Your task to perform on an android device: open app "Adobe Express: Graphic Design" Image 0: 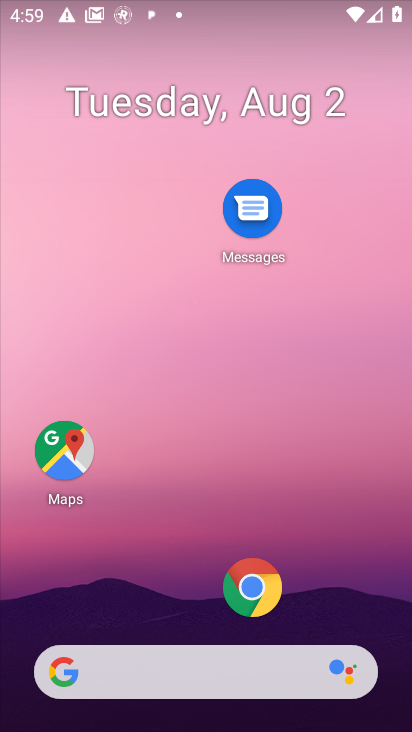
Step 0: drag from (156, 589) to (196, 166)
Your task to perform on an android device: open app "Adobe Express: Graphic Design" Image 1: 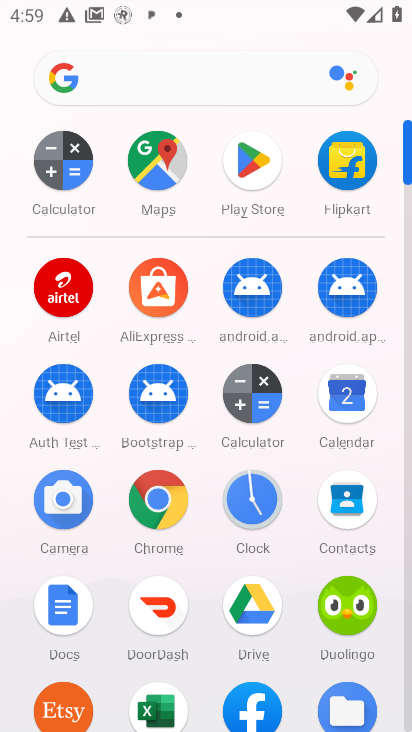
Step 1: click (241, 173)
Your task to perform on an android device: open app "Adobe Express: Graphic Design" Image 2: 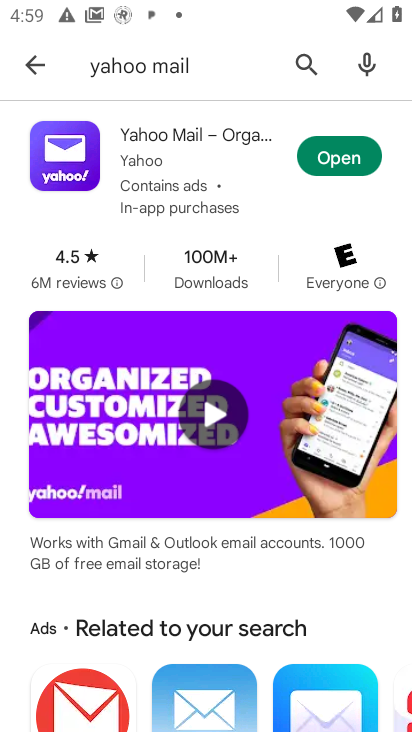
Step 2: click (303, 55)
Your task to perform on an android device: open app "Adobe Express: Graphic Design" Image 3: 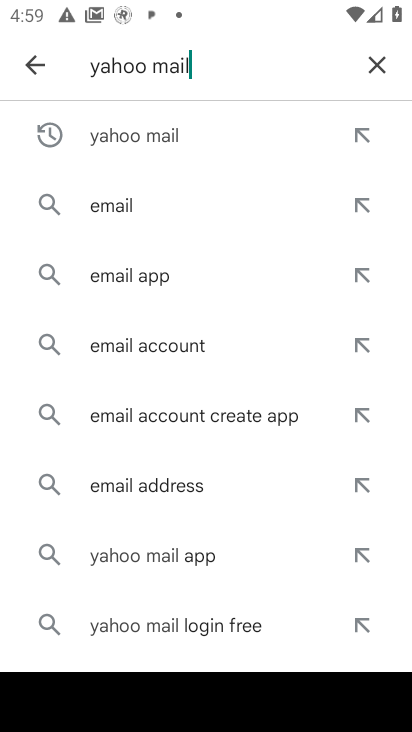
Step 3: click (369, 60)
Your task to perform on an android device: open app "Adobe Express: Graphic Design" Image 4: 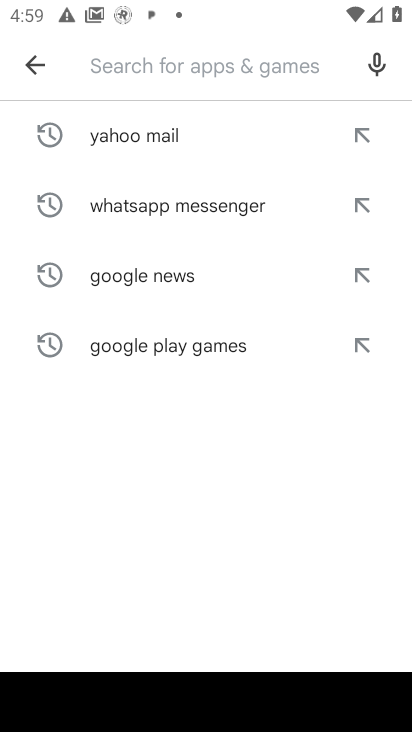
Step 4: type "Adobe Express: Graphic Design"
Your task to perform on an android device: open app "Adobe Express: Graphic Design" Image 5: 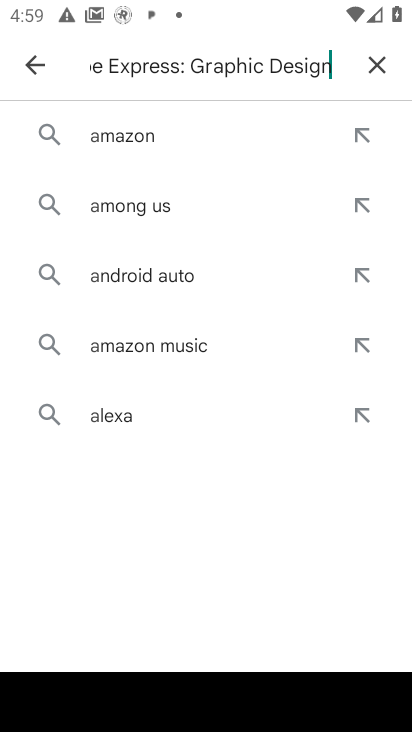
Step 5: type ""
Your task to perform on an android device: open app "Adobe Express: Graphic Design" Image 6: 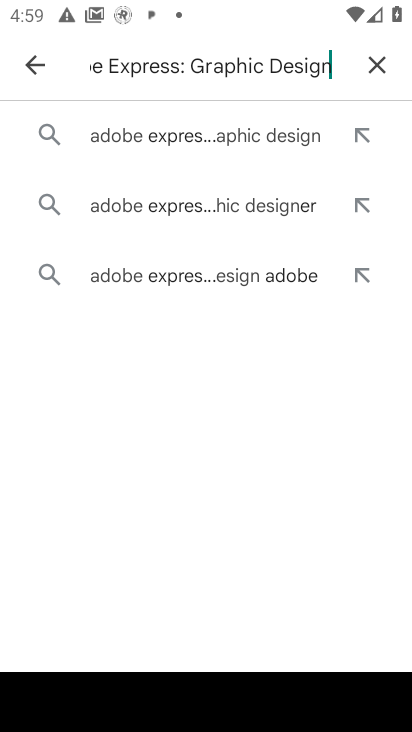
Step 6: click (113, 136)
Your task to perform on an android device: open app "Adobe Express: Graphic Design" Image 7: 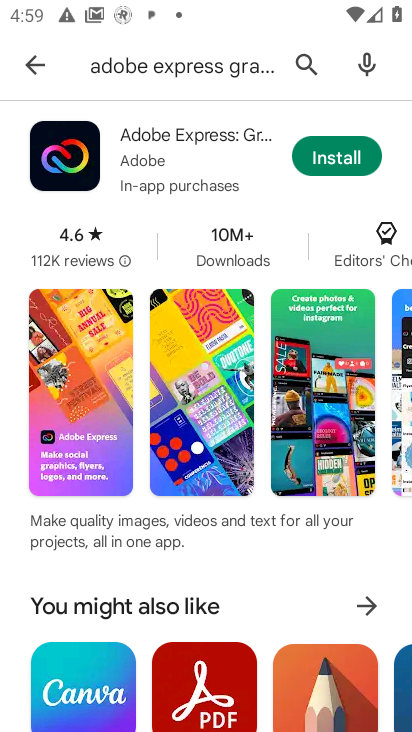
Step 7: task complete